Your task to perform on an android device: turn notification dots on Image 0: 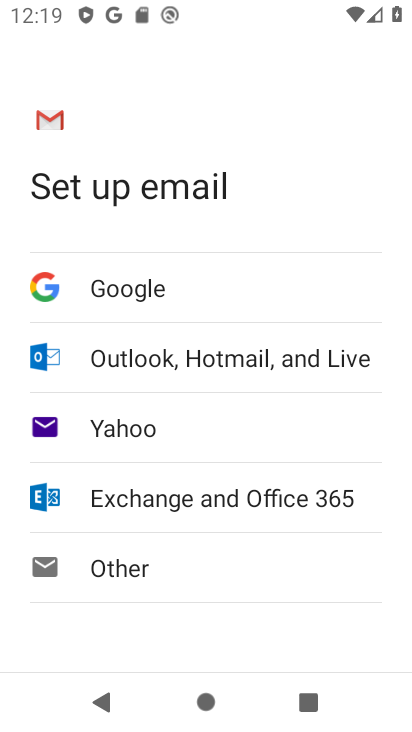
Step 0: drag from (381, 542) to (305, 189)
Your task to perform on an android device: turn notification dots on Image 1: 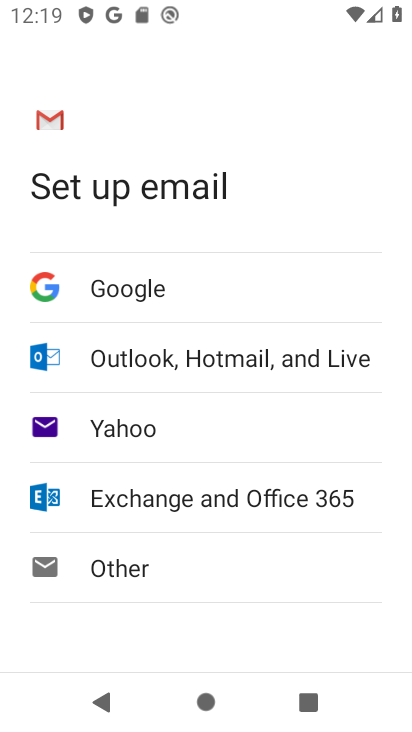
Step 1: press home button
Your task to perform on an android device: turn notification dots on Image 2: 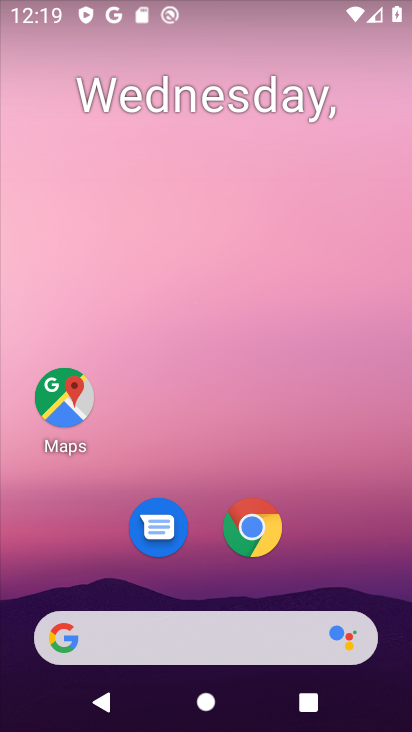
Step 2: drag from (361, 581) to (274, 226)
Your task to perform on an android device: turn notification dots on Image 3: 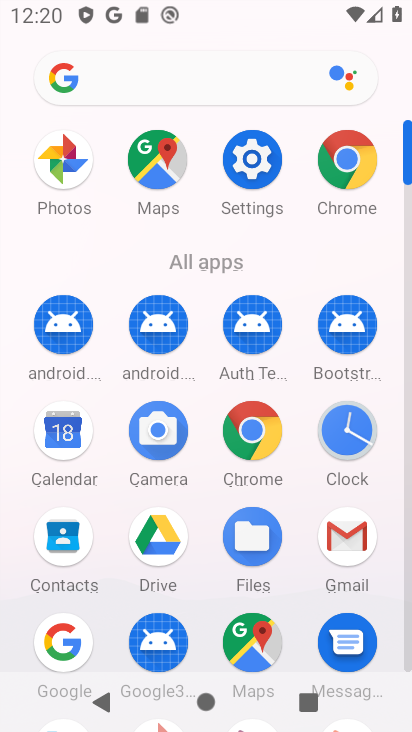
Step 3: click (245, 164)
Your task to perform on an android device: turn notification dots on Image 4: 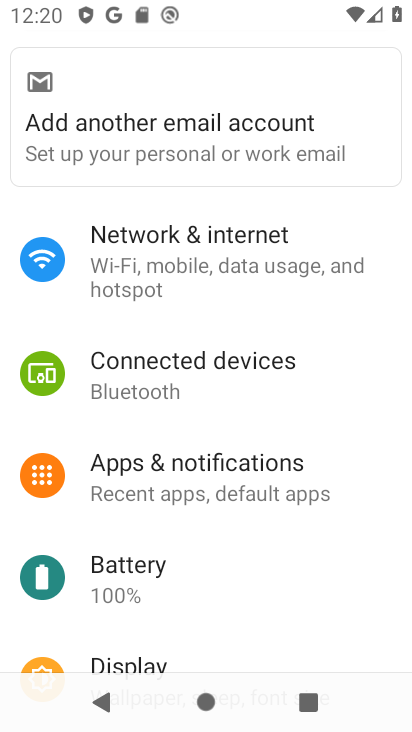
Step 4: click (267, 492)
Your task to perform on an android device: turn notification dots on Image 5: 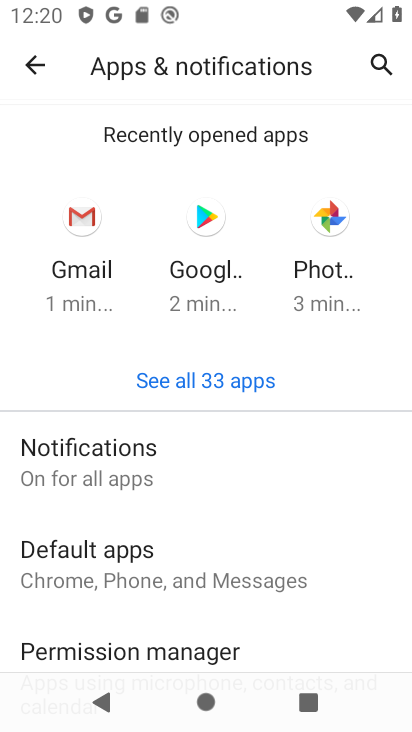
Step 5: click (236, 462)
Your task to perform on an android device: turn notification dots on Image 6: 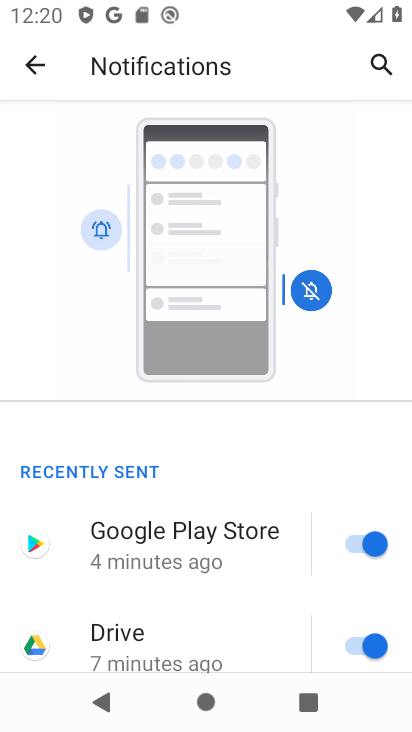
Step 6: drag from (252, 601) to (222, 139)
Your task to perform on an android device: turn notification dots on Image 7: 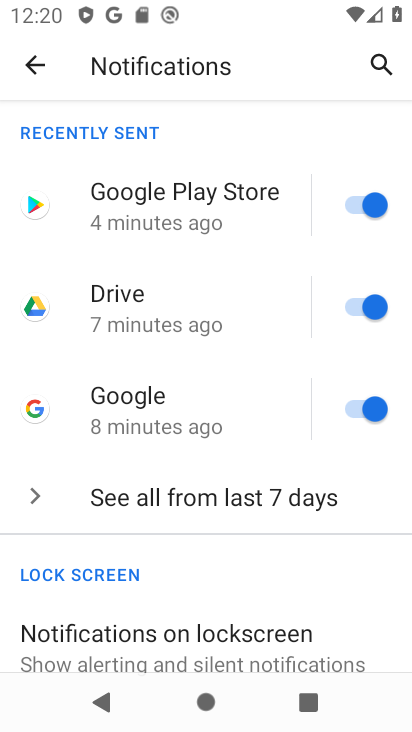
Step 7: drag from (298, 575) to (225, 87)
Your task to perform on an android device: turn notification dots on Image 8: 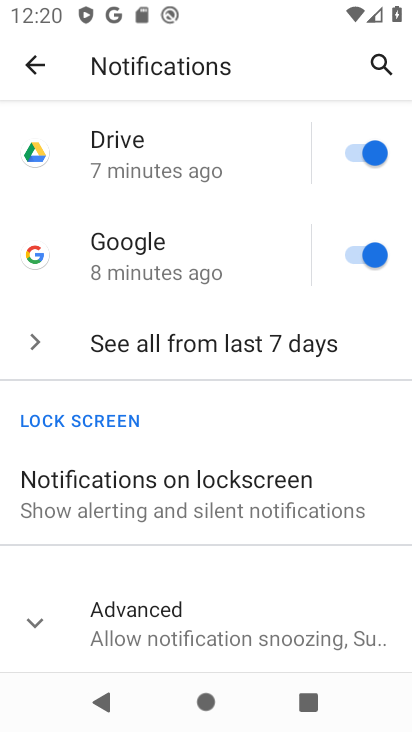
Step 8: click (287, 614)
Your task to perform on an android device: turn notification dots on Image 9: 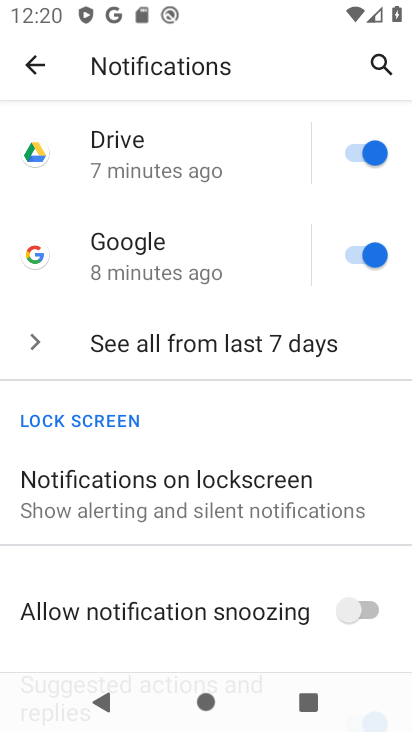
Step 9: task complete